Your task to perform on an android device: turn notification dots off Image 0: 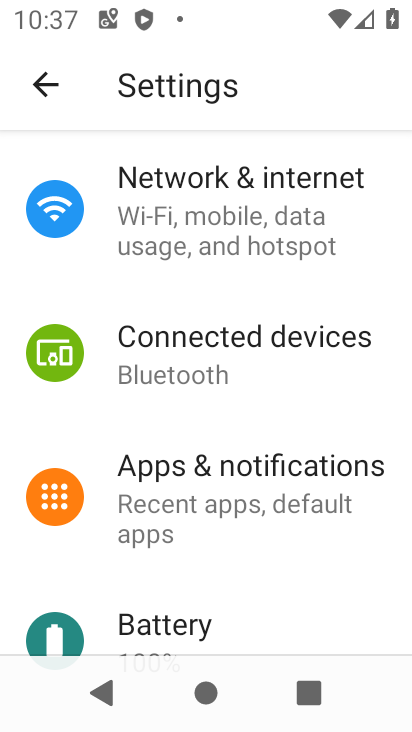
Step 0: drag from (237, 570) to (311, 195)
Your task to perform on an android device: turn notification dots off Image 1: 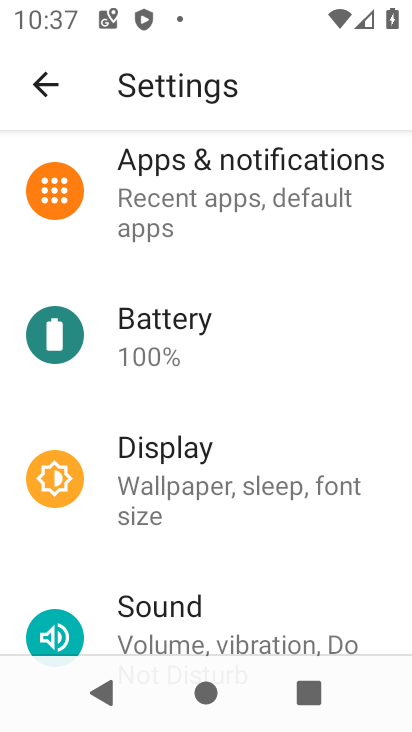
Step 1: press home button
Your task to perform on an android device: turn notification dots off Image 2: 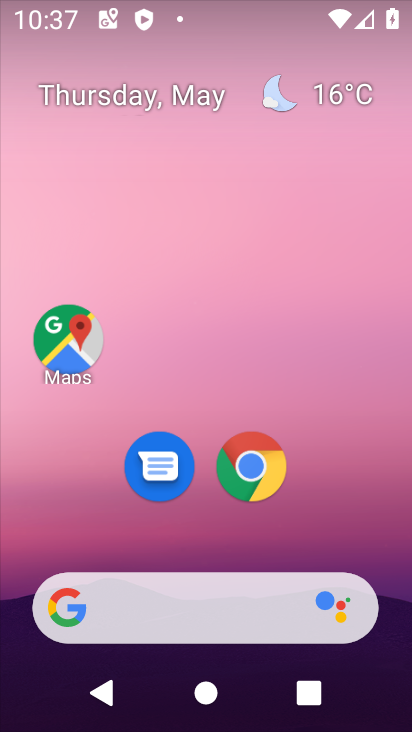
Step 2: drag from (248, 384) to (296, 82)
Your task to perform on an android device: turn notification dots off Image 3: 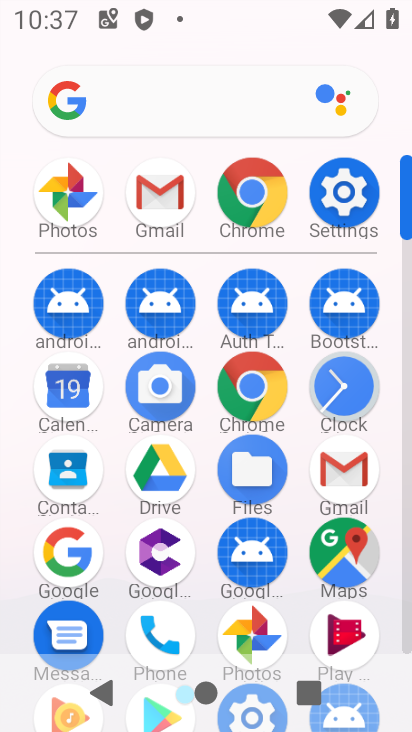
Step 3: click (362, 201)
Your task to perform on an android device: turn notification dots off Image 4: 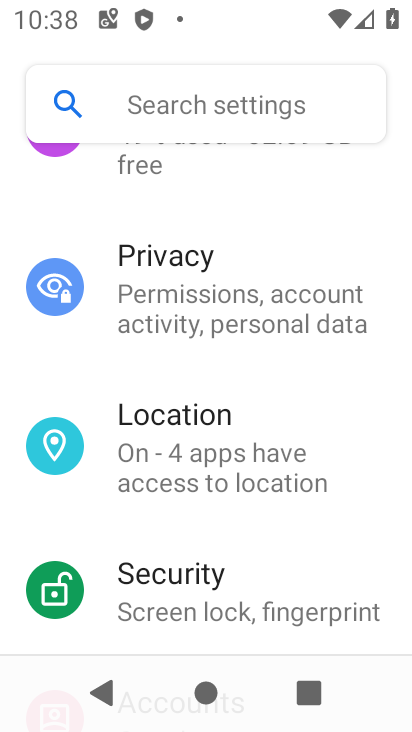
Step 4: click (273, 111)
Your task to perform on an android device: turn notification dots off Image 5: 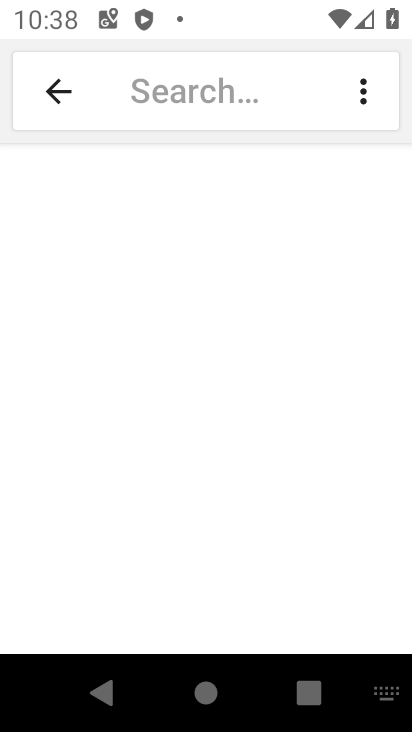
Step 5: type " notification dots off"
Your task to perform on an android device: turn notification dots off Image 6: 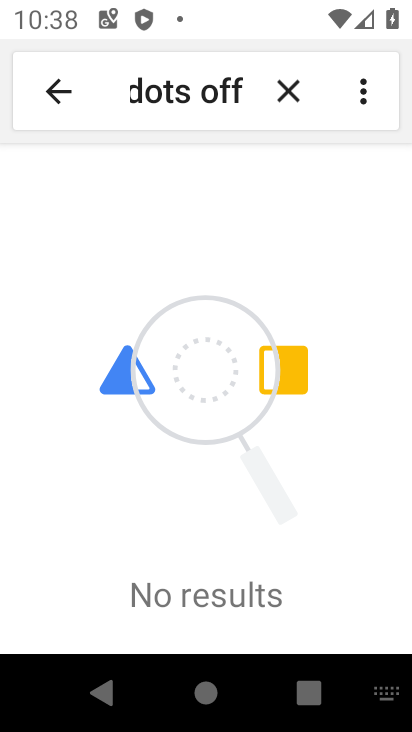
Step 6: click (239, 90)
Your task to perform on an android device: turn notification dots off Image 7: 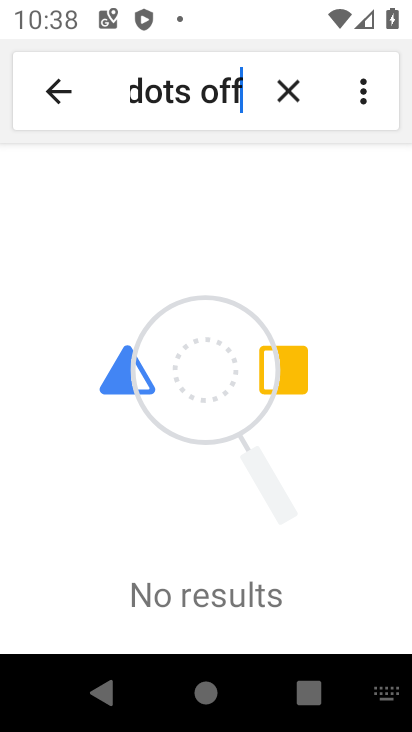
Step 7: click (269, 98)
Your task to perform on an android device: turn notification dots off Image 8: 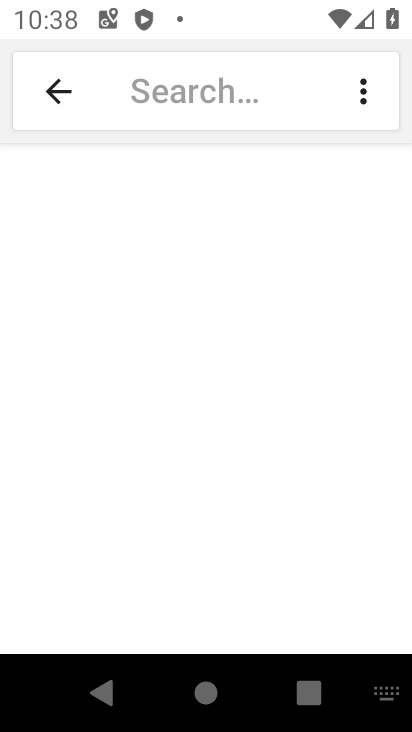
Step 8: click (253, 72)
Your task to perform on an android device: turn notification dots off Image 9: 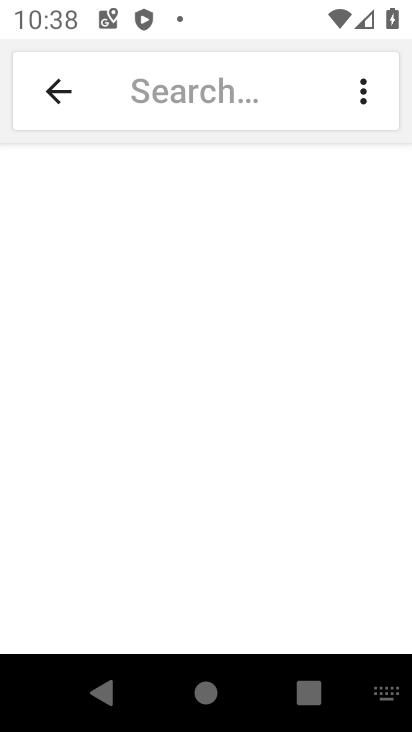
Step 9: click (228, 73)
Your task to perform on an android device: turn notification dots off Image 10: 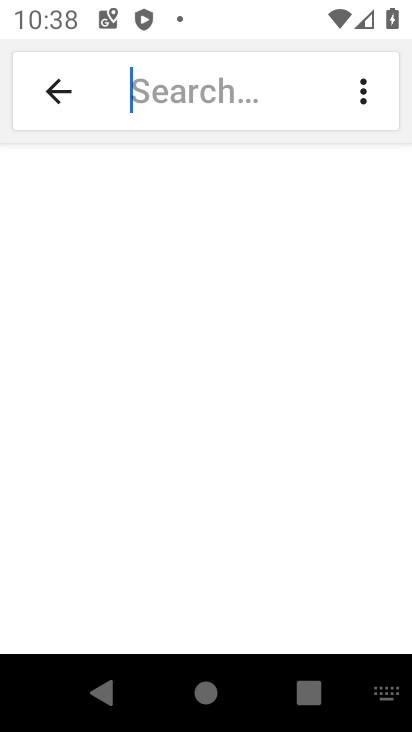
Step 10: type " notification dots"
Your task to perform on an android device: turn notification dots off Image 11: 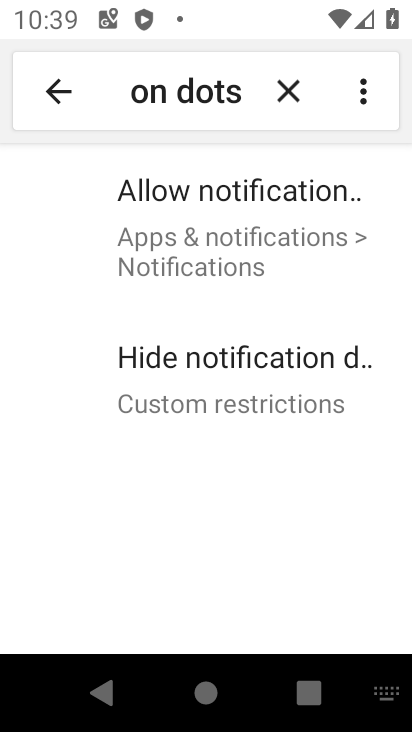
Step 11: click (249, 220)
Your task to perform on an android device: turn notification dots off Image 12: 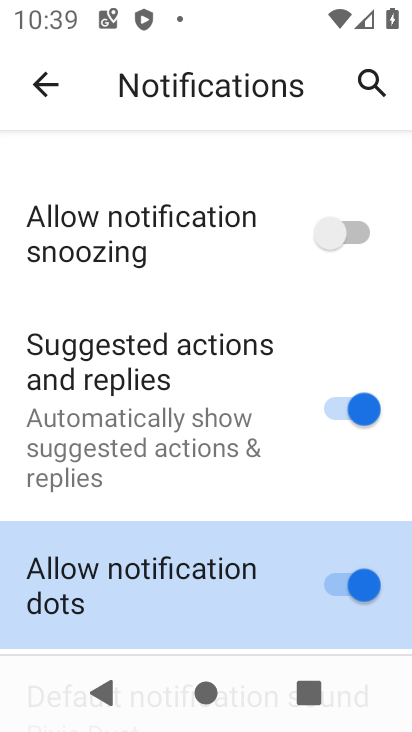
Step 12: click (361, 576)
Your task to perform on an android device: turn notification dots off Image 13: 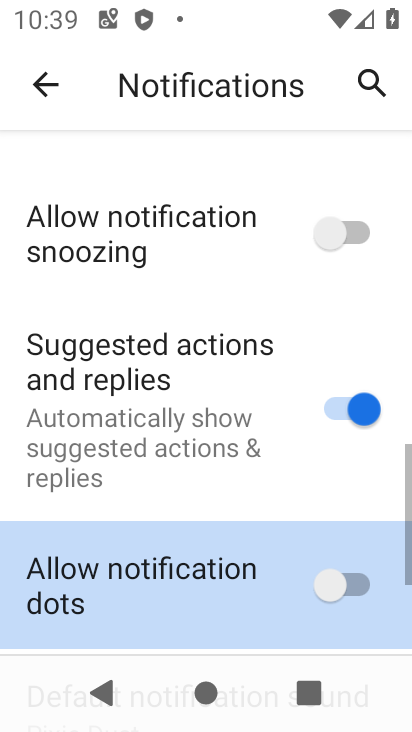
Step 13: task complete